Your task to perform on an android device: Do I have any events tomorrow? Image 0: 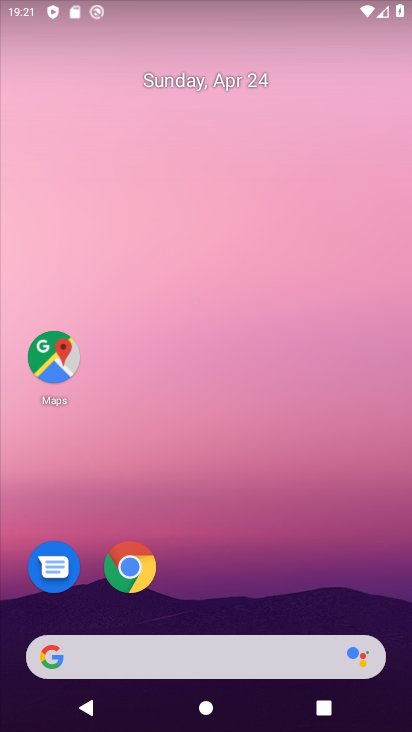
Step 0: drag from (247, 689) to (249, 235)
Your task to perform on an android device: Do I have any events tomorrow? Image 1: 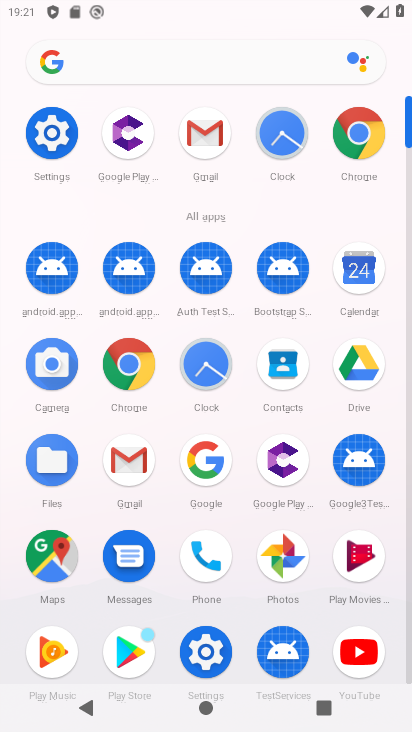
Step 1: click (345, 284)
Your task to perform on an android device: Do I have any events tomorrow? Image 2: 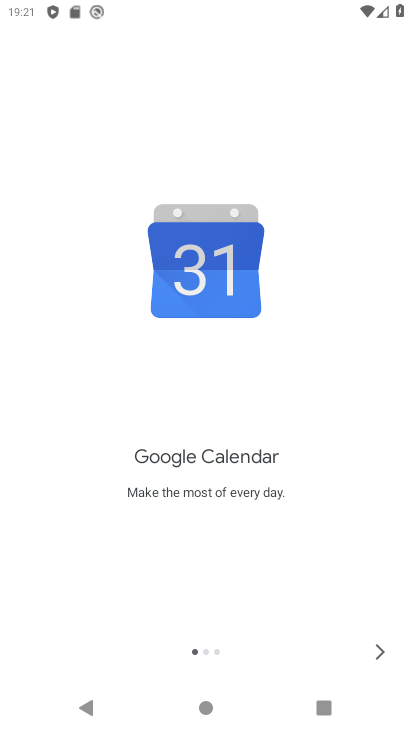
Step 2: click (380, 648)
Your task to perform on an android device: Do I have any events tomorrow? Image 3: 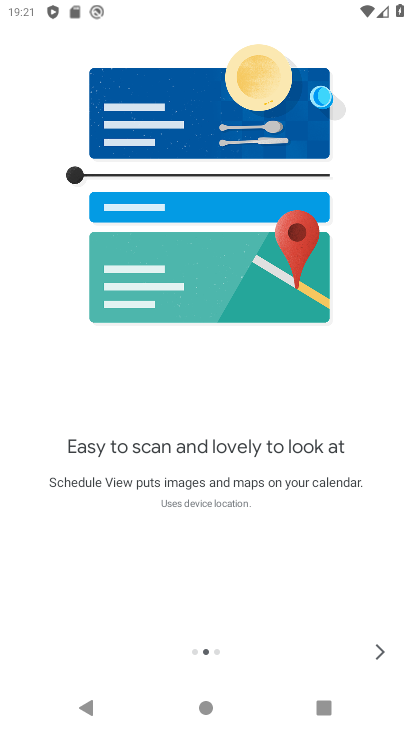
Step 3: click (366, 655)
Your task to perform on an android device: Do I have any events tomorrow? Image 4: 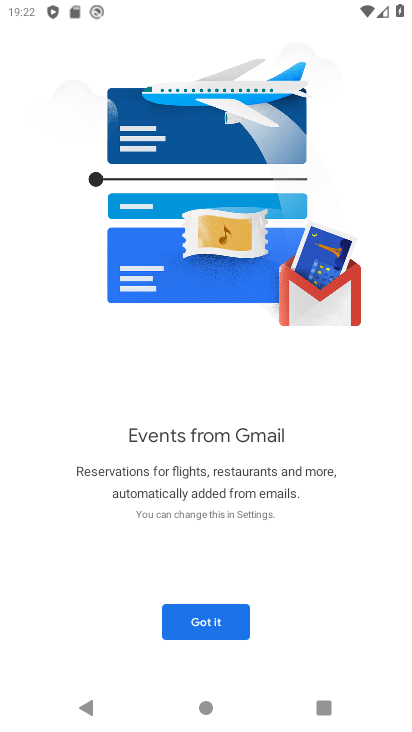
Step 4: click (225, 608)
Your task to perform on an android device: Do I have any events tomorrow? Image 5: 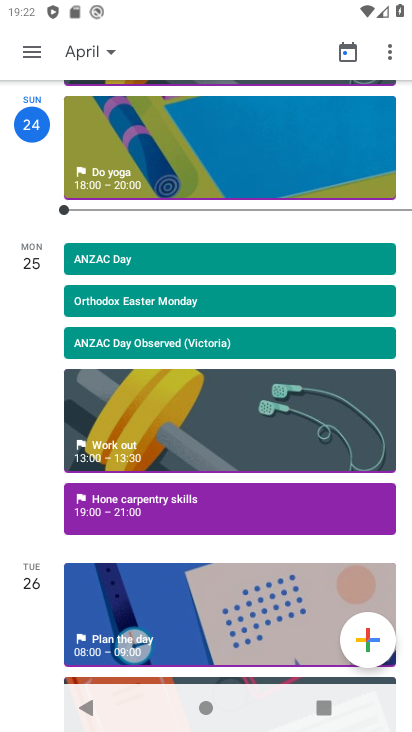
Step 5: click (38, 66)
Your task to perform on an android device: Do I have any events tomorrow? Image 6: 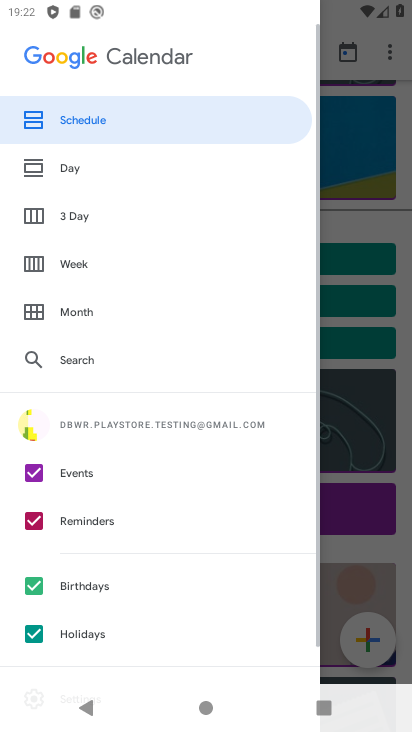
Step 6: click (75, 126)
Your task to perform on an android device: Do I have any events tomorrow? Image 7: 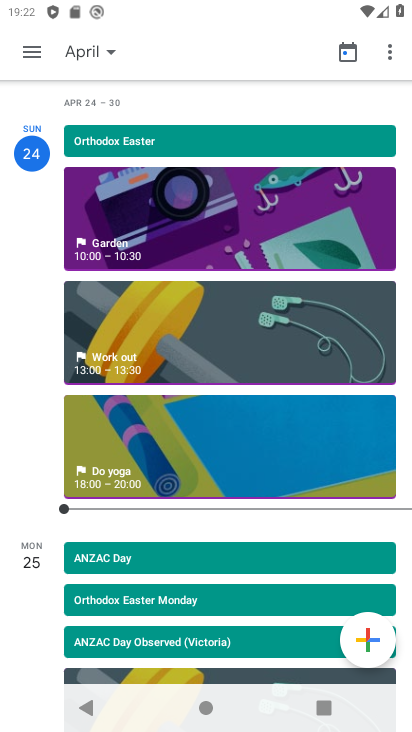
Step 7: task complete